Your task to perform on an android device: Open calendar and show me the second week of next month Image 0: 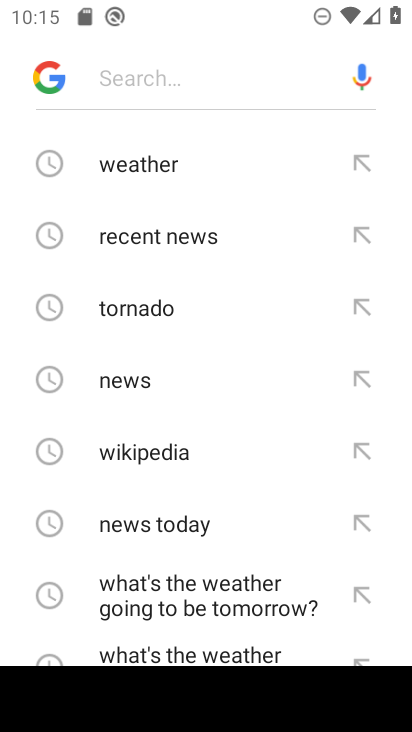
Step 0: press home button
Your task to perform on an android device: Open calendar and show me the second week of next month Image 1: 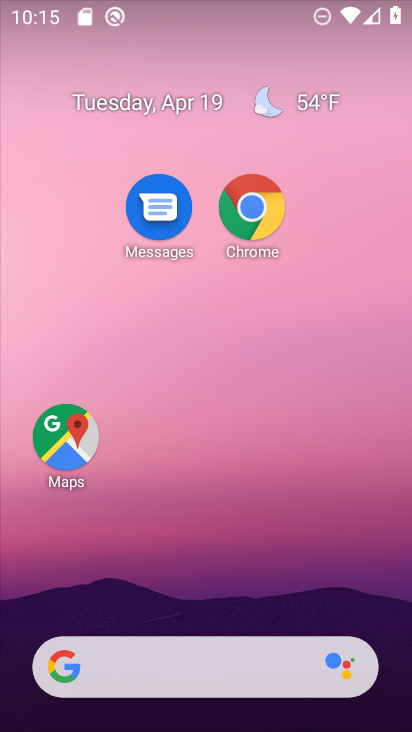
Step 1: drag from (220, 633) to (199, 179)
Your task to perform on an android device: Open calendar and show me the second week of next month Image 2: 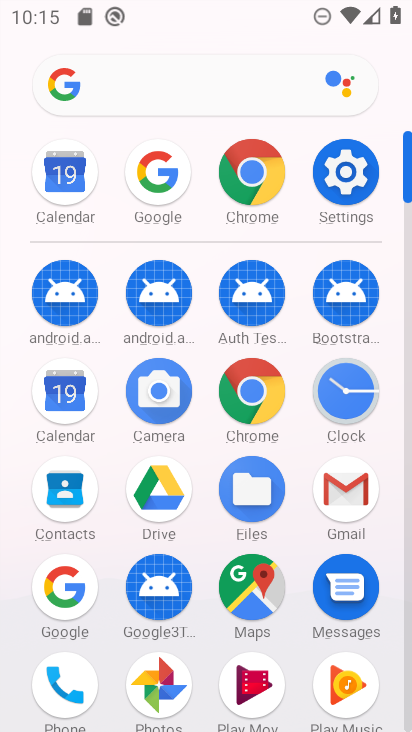
Step 2: click (73, 406)
Your task to perform on an android device: Open calendar and show me the second week of next month Image 3: 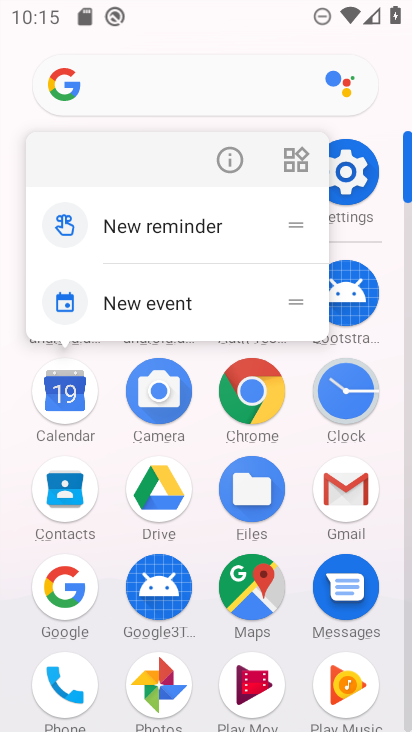
Step 3: click (63, 393)
Your task to perform on an android device: Open calendar and show me the second week of next month Image 4: 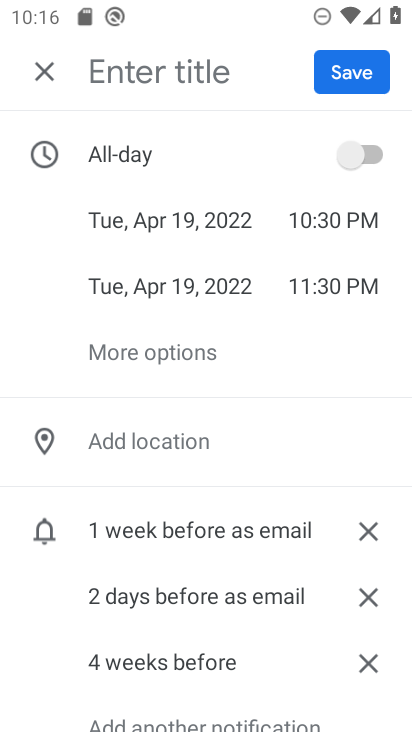
Step 4: click (48, 77)
Your task to perform on an android device: Open calendar and show me the second week of next month Image 5: 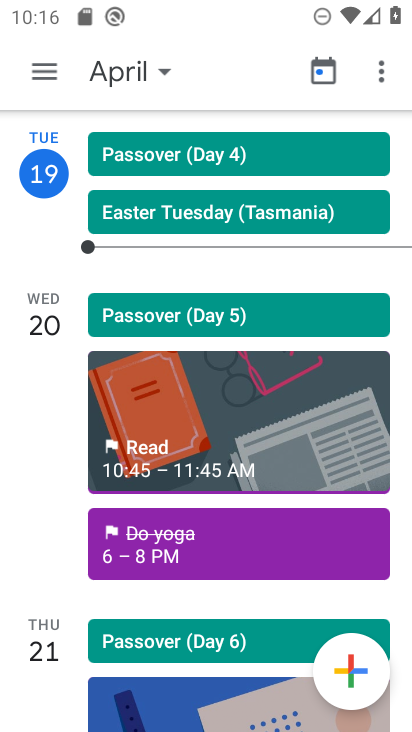
Step 5: click (144, 68)
Your task to perform on an android device: Open calendar and show me the second week of next month Image 6: 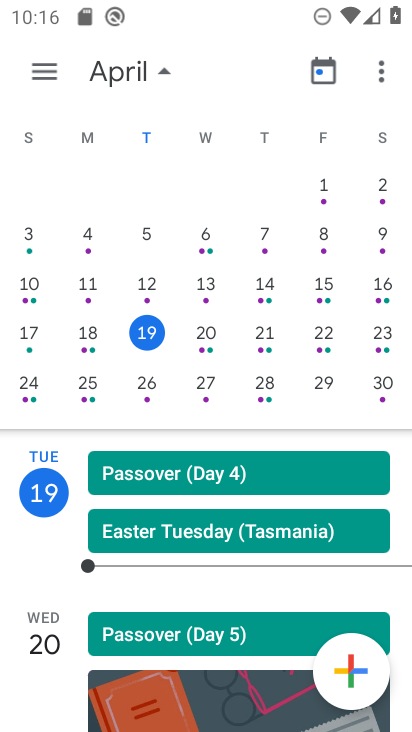
Step 6: drag from (387, 262) to (22, 307)
Your task to perform on an android device: Open calendar and show me the second week of next month Image 7: 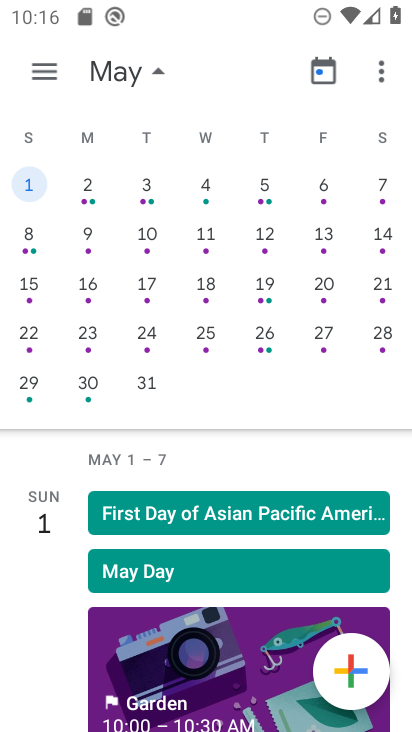
Step 7: click (35, 246)
Your task to perform on an android device: Open calendar and show me the second week of next month Image 8: 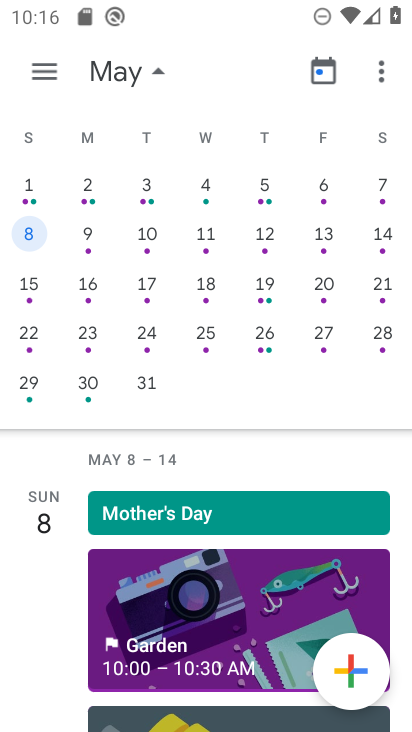
Step 8: task complete